Your task to perform on an android device: Open battery settings Image 0: 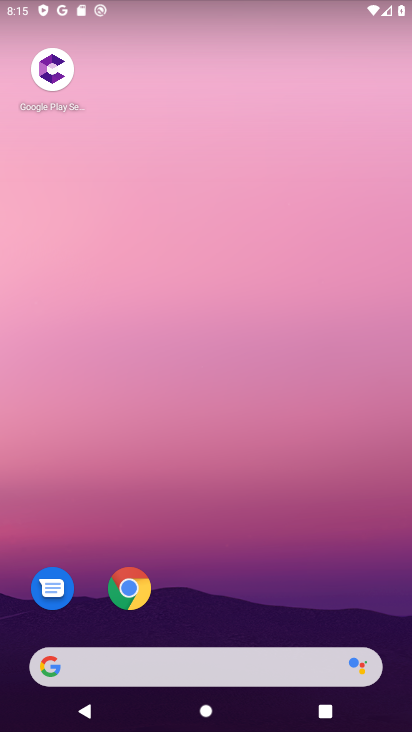
Step 0: drag from (277, 618) to (209, 189)
Your task to perform on an android device: Open battery settings Image 1: 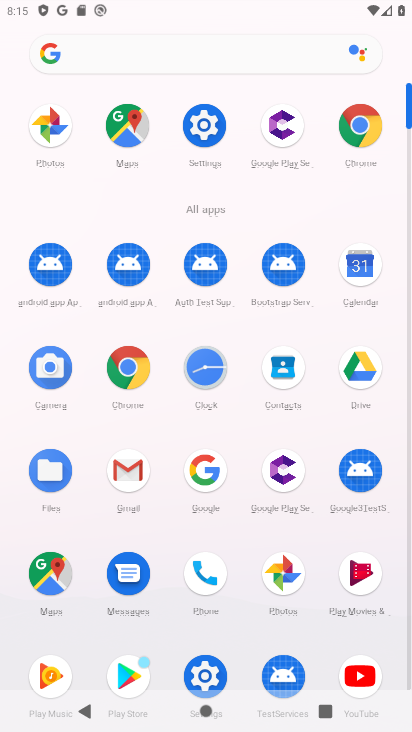
Step 1: click (207, 125)
Your task to perform on an android device: Open battery settings Image 2: 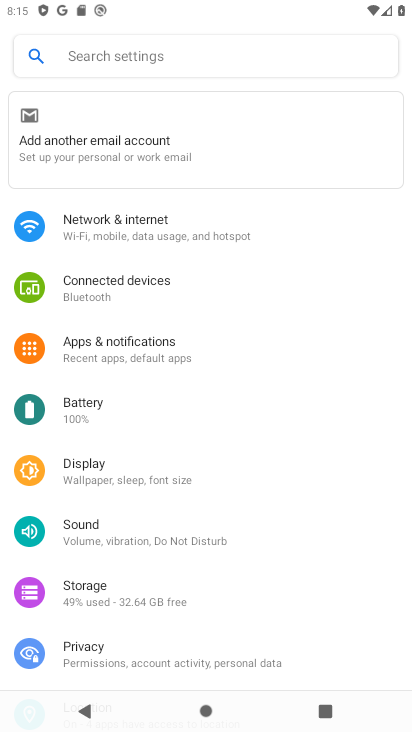
Step 2: click (162, 417)
Your task to perform on an android device: Open battery settings Image 3: 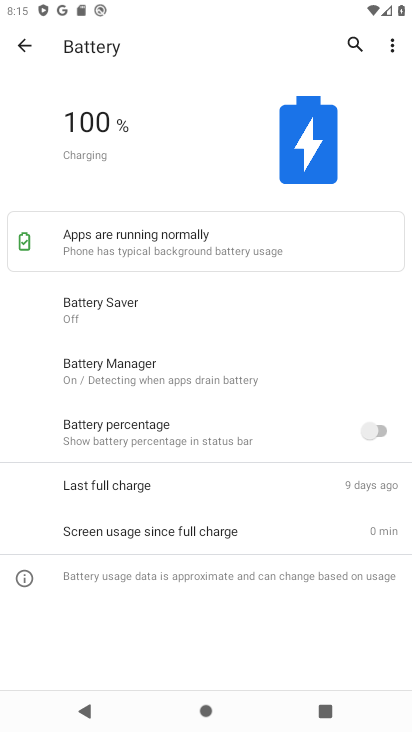
Step 3: task complete